Your task to perform on an android device: turn off wifi Image 0: 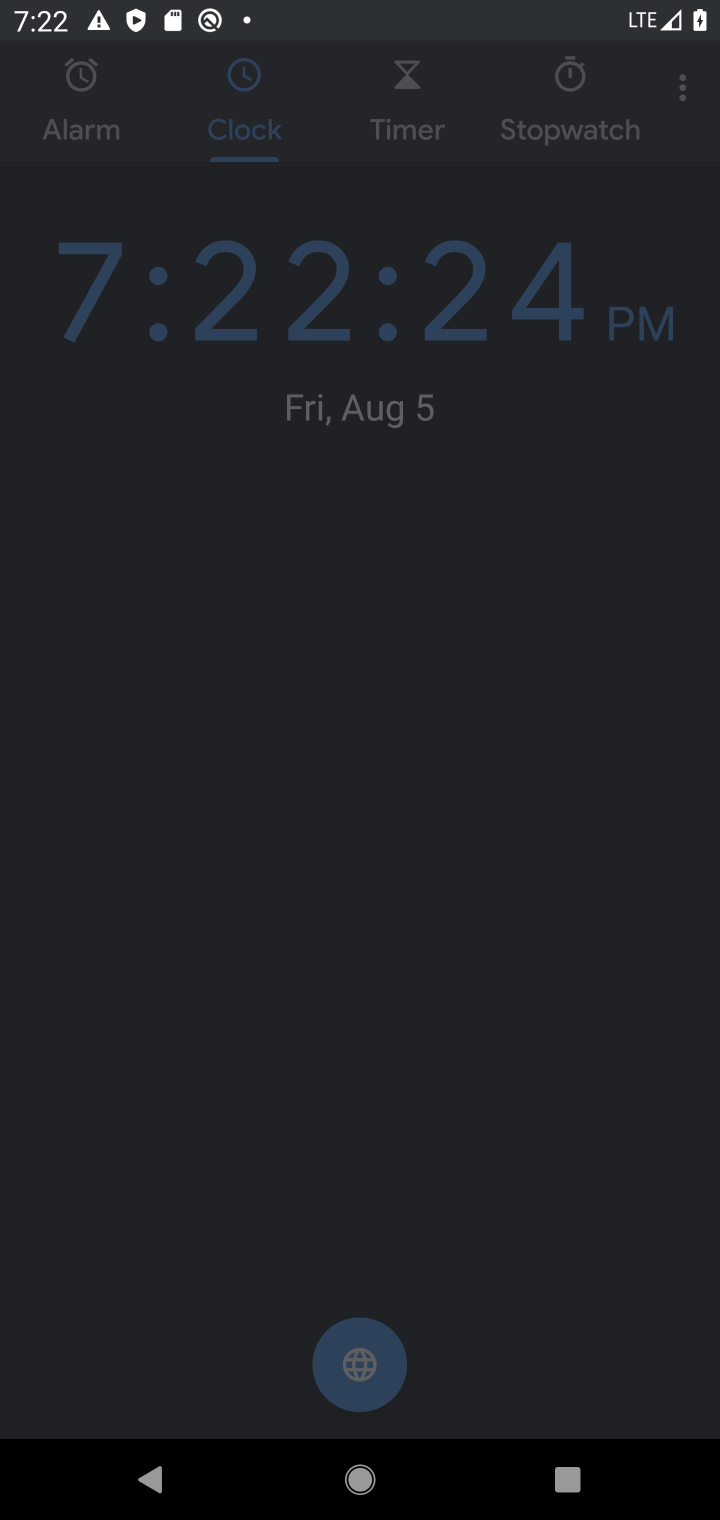
Step 0: press home button
Your task to perform on an android device: turn off wifi Image 1: 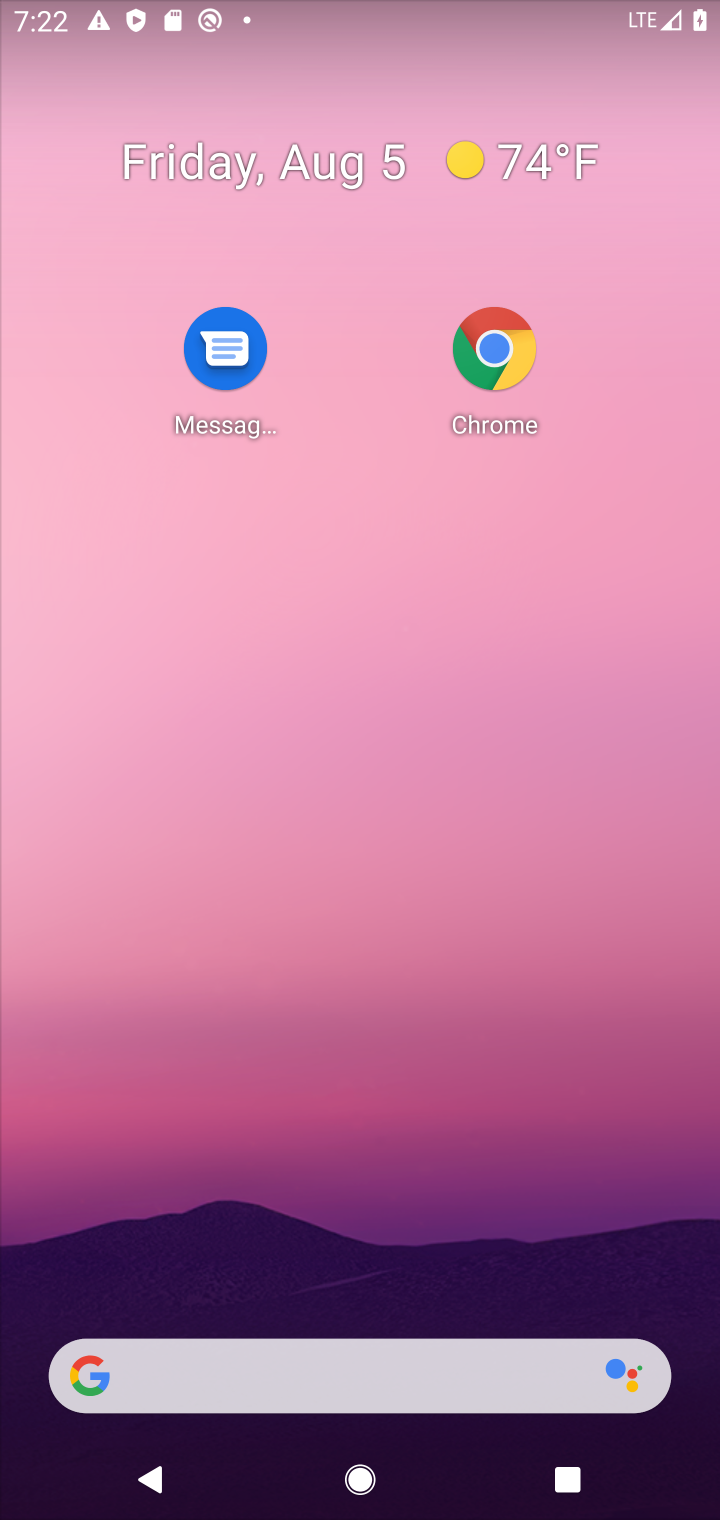
Step 1: drag from (466, 1384) to (452, 399)
Your task to perform on an android device: turn off wifi Image 2: 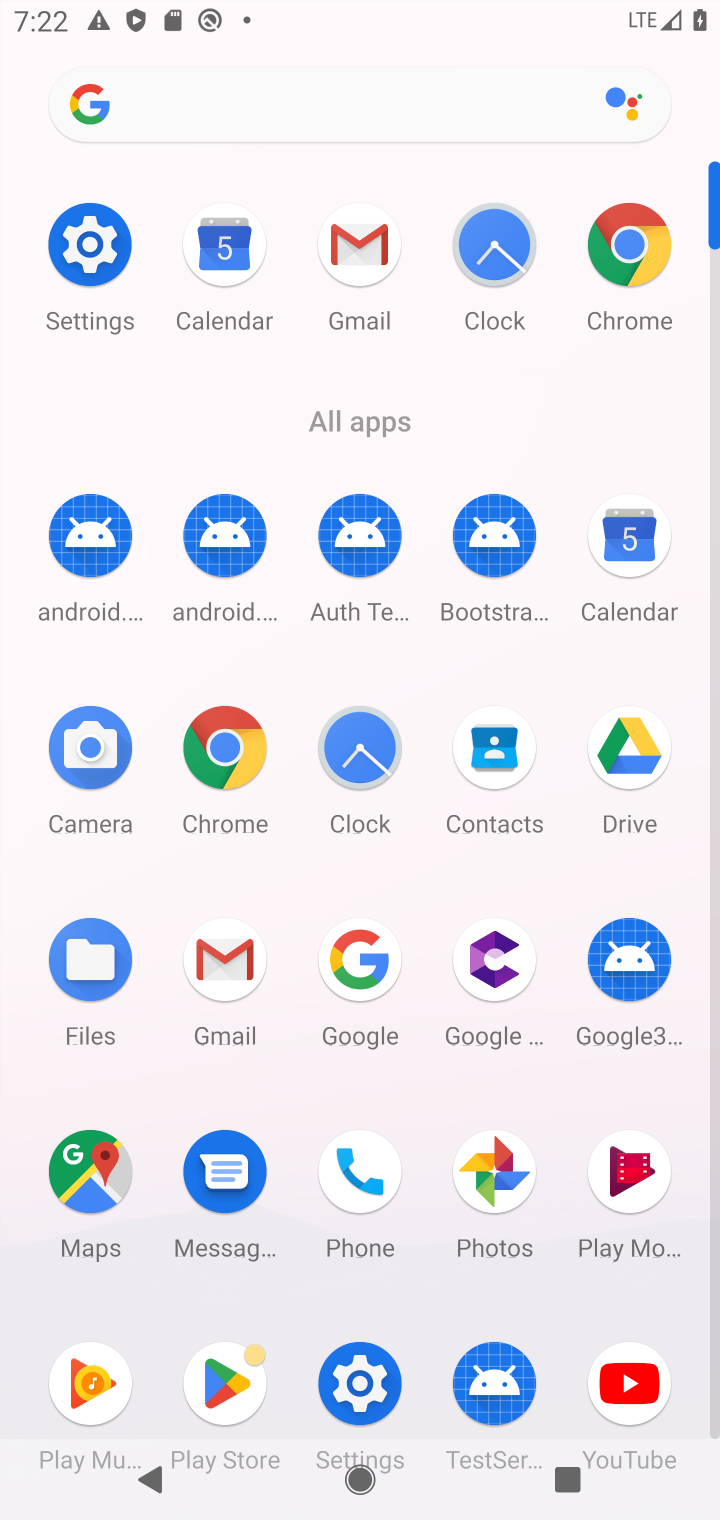
Step 2: click (105, 276)
Your task to perform on an android device: turn off wifi Image 3: 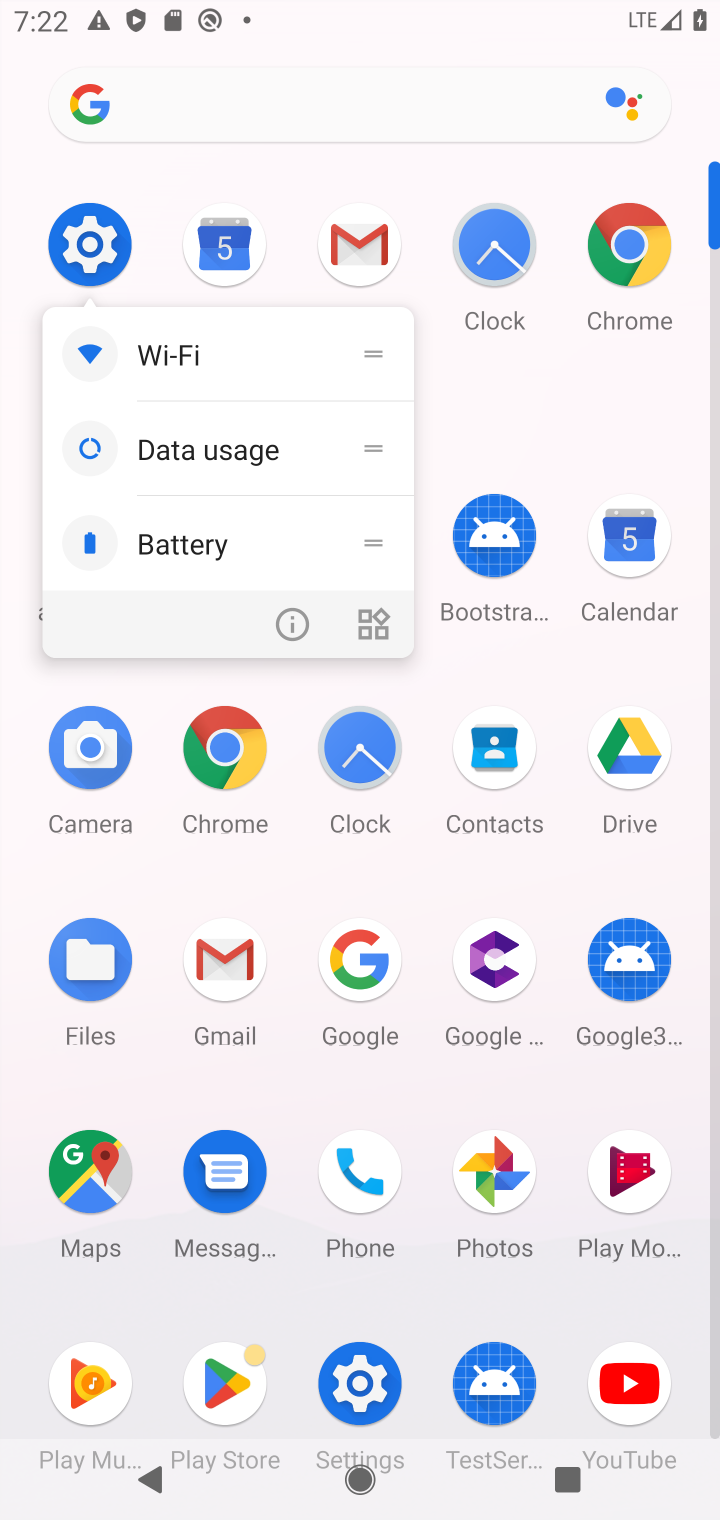
Step 3: click (90, 251)
Your task to perform on an android device: turn off wifi Image 4: 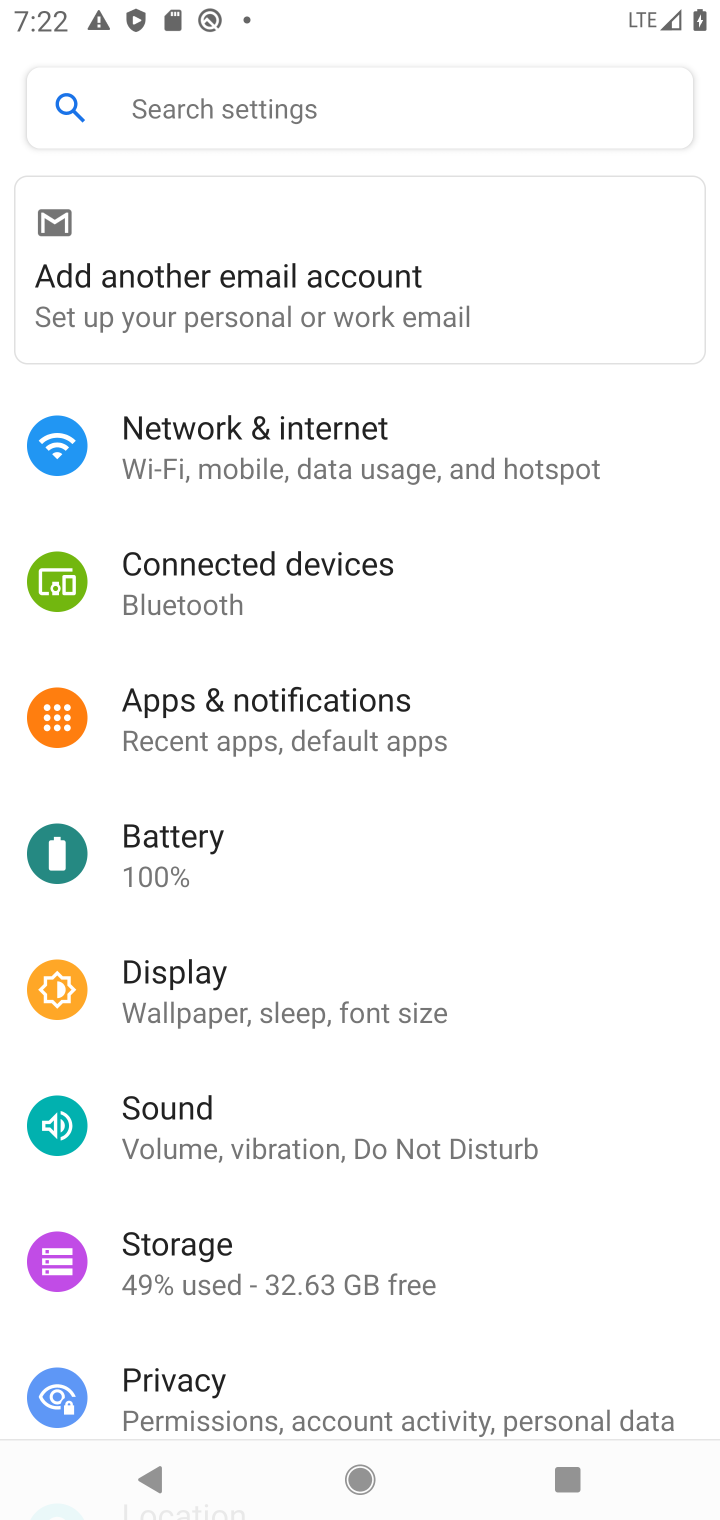
Step 4: click (336, 447)
Your task to perform on an android device: turn off wifi Image 5: 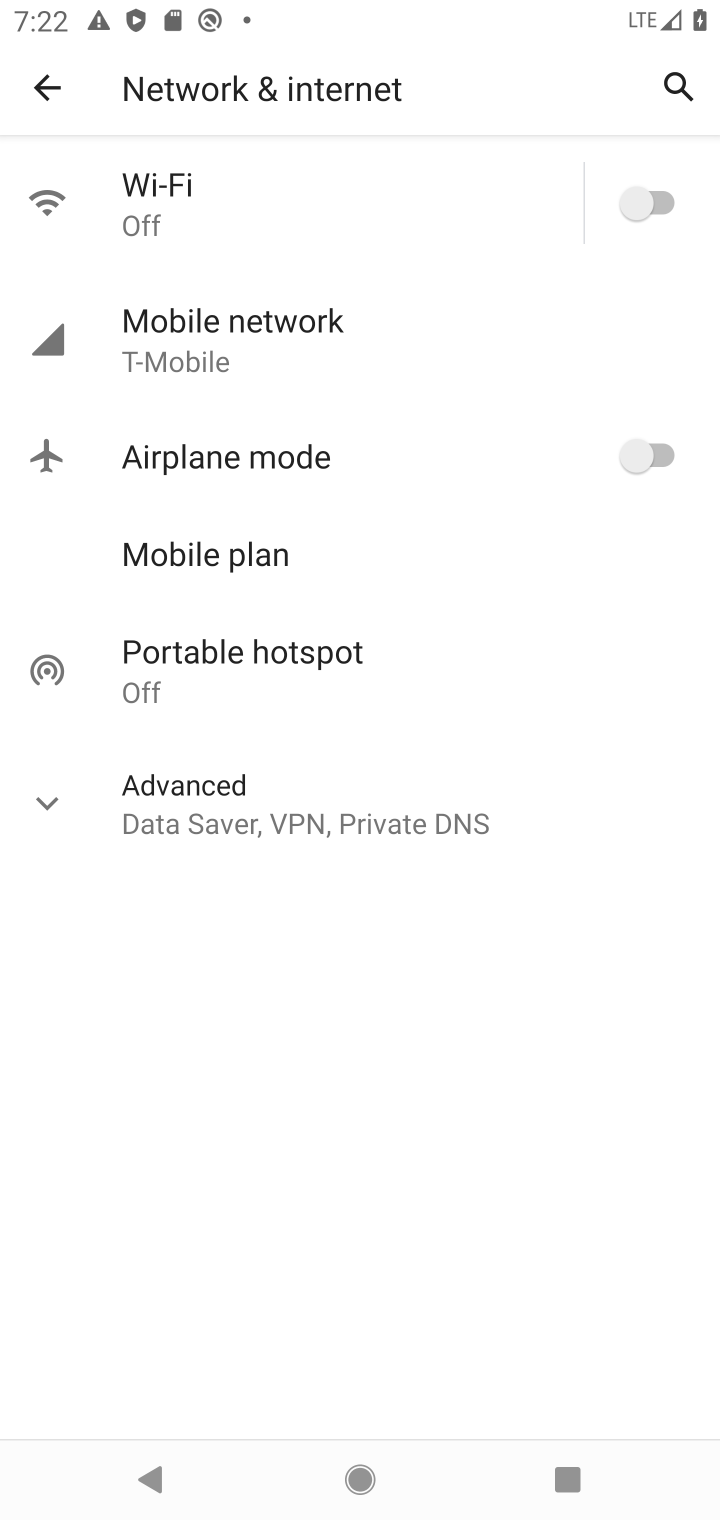
Step 5: click (314, 208)
Your task to perform on an android device: turn off wifi Image 6: 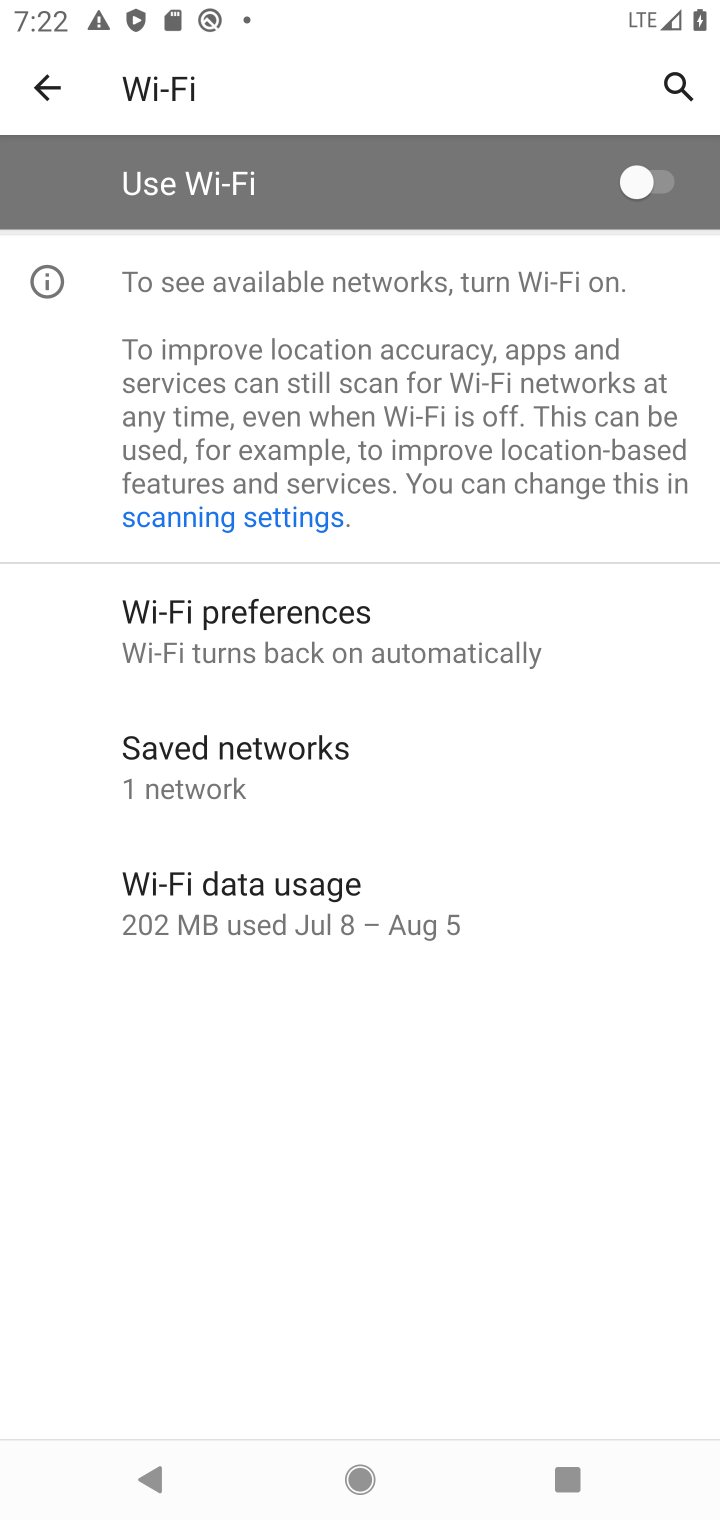
Step 6: task complete